Your task to perform on an android device: What is the news today? Image 0: 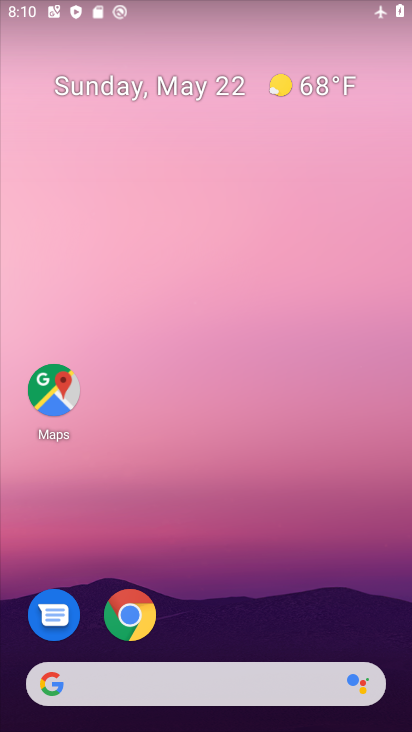
Step 0: click (220, 664)
Your task to perform on an android device: What is the news today? Image 1: 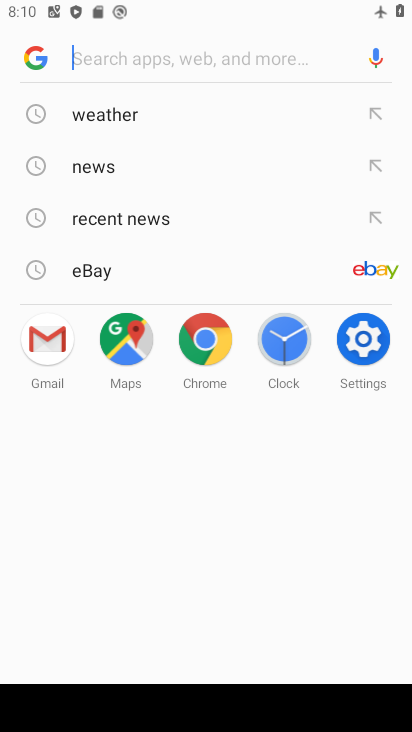
Step 1: click (118, 179)
Your task to perform on an android device: What is the news today? Image 2: 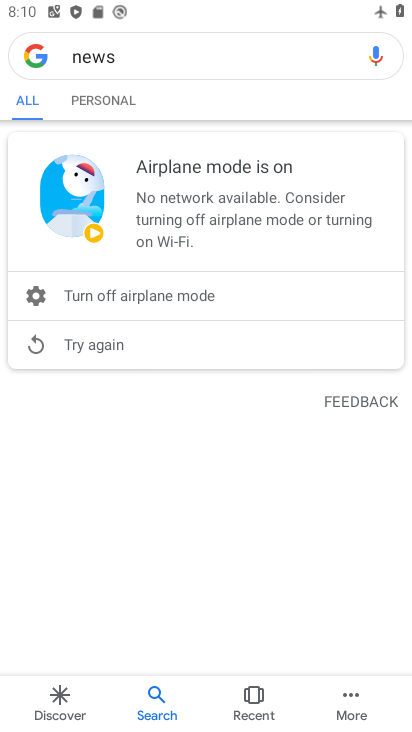
Step 2: click (80, 340)
Your task to perform on an android device: What is the news today? Image 3: 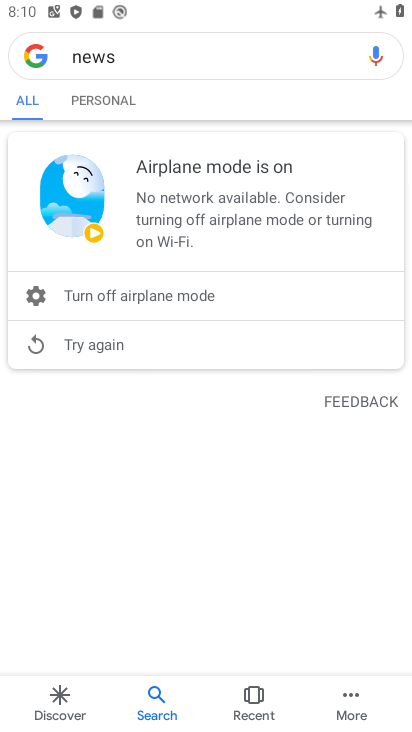
Step 3: task complete